Your task to perform on an android device: Open sound settings Image 0: 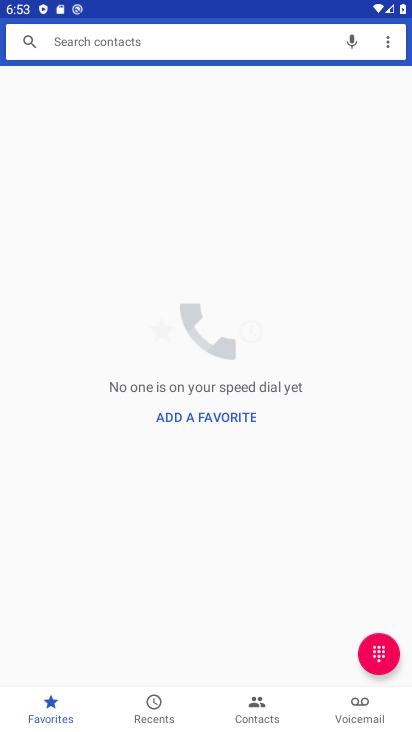
Step 0: press home button
Your task to perform on an android device: Open sound settings Image 1: 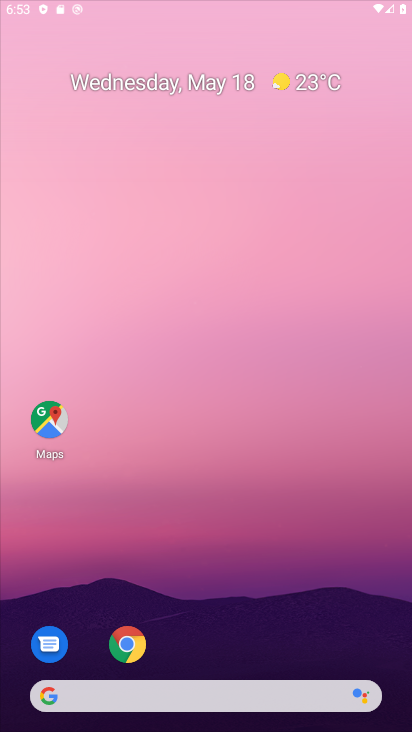
Step 1: drag from (337, 647) to (325, 69)
Your task to perform on an android device: Open sound settings Image 2: 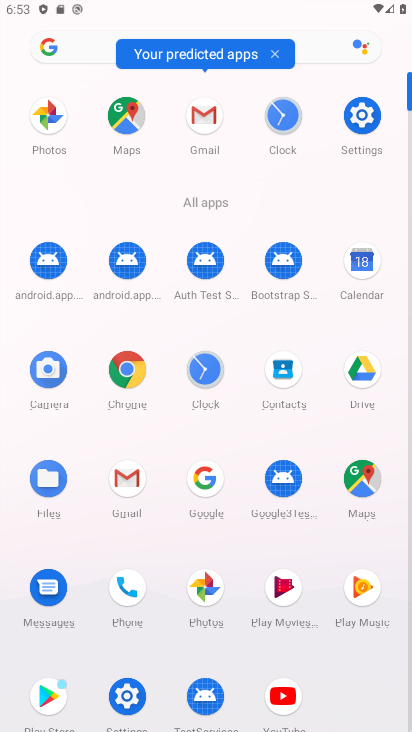
Step 2: click (132, 700)
Your task to perform on an android device: Open sound settings Image 3: 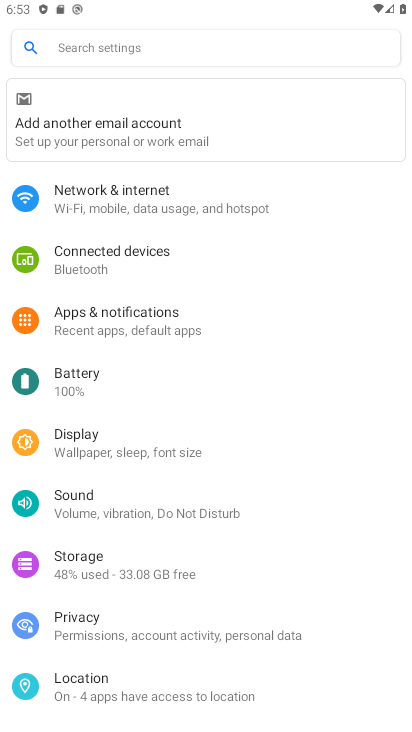
Step 3: click (120, 510)
Your task to perform on an android device: Open sound settings Image 4: 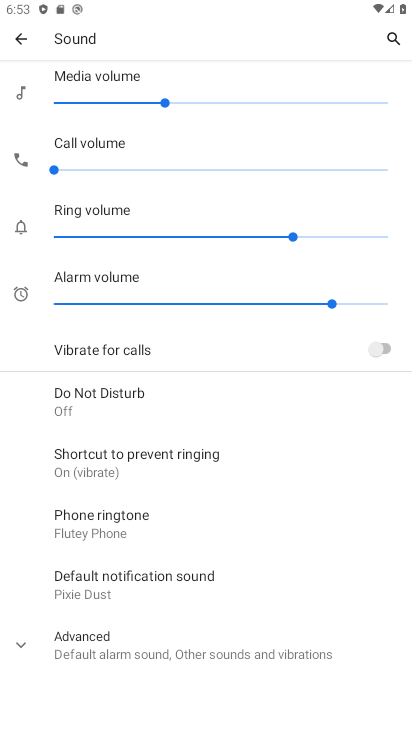
Step 4: task complete